Your task to perform on an android device: toggle show notifications on the lock screen Image 0: 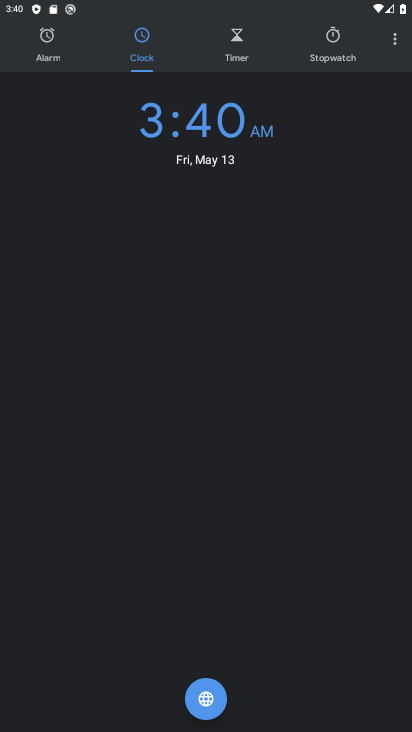
Step 0: press home button
Your task to perform on an android device: toggle show notifications on the lock screen Image 1: 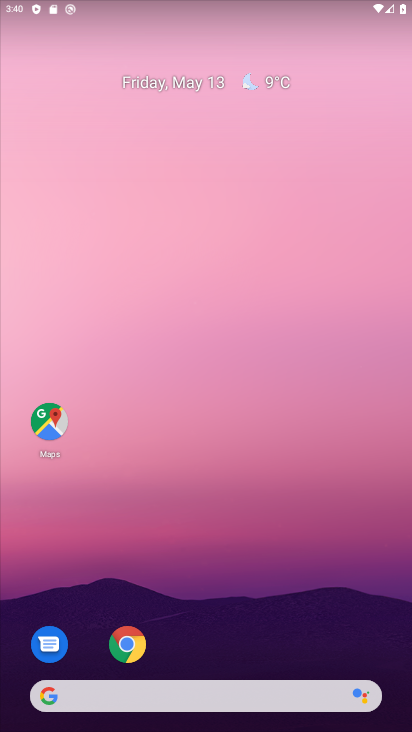
Step 1: drag from (258, 603) to (223, 158)
Your task to perform on an android device: toggle show notifications on the lock screen Image 2: 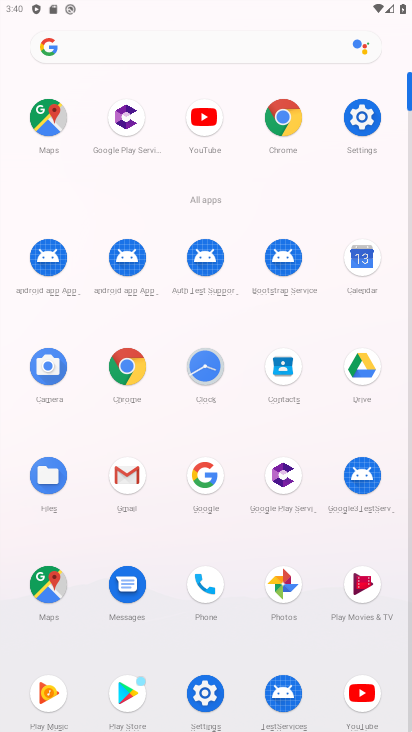
Step 2: click (370, 128)
Your task to perform on an android device: toggle show notifications on the lock screen Image 3: 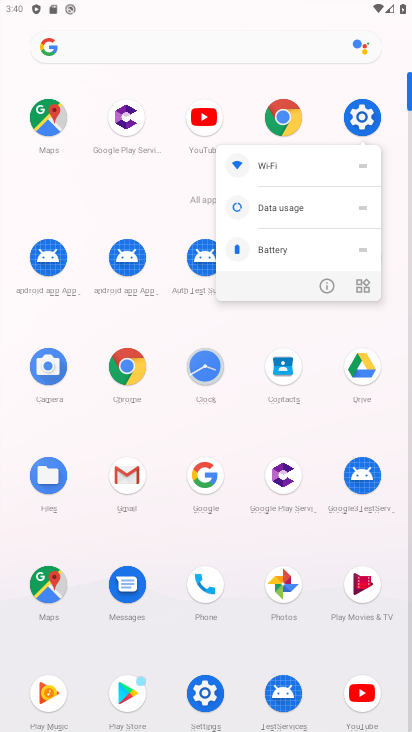
Step 3: click (364, 117)
Your task to perform on an android device: toggle show notifications on the lock screen Image 4: 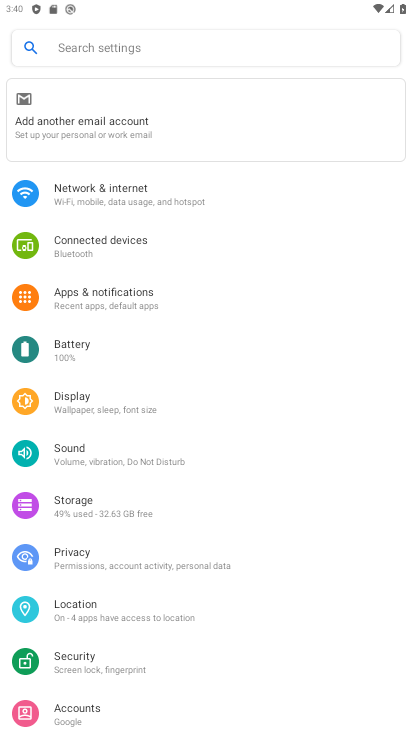
Step 4: click (168, 287)
Your task to perform on an android device: toggle show notifications on the lock screen Image 5: 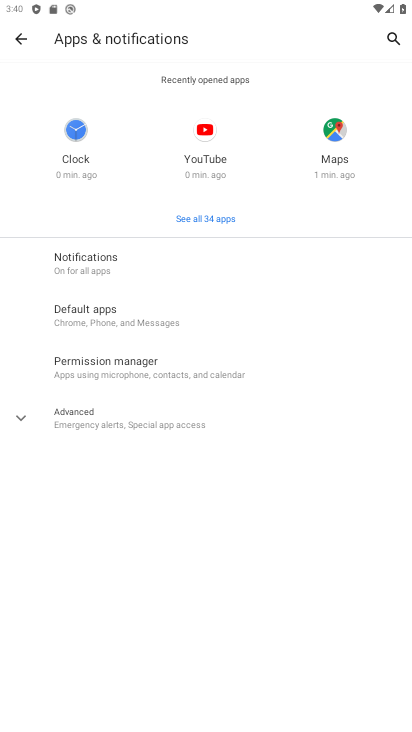
Step 5: click (147, 257)
Your task to perform on an android device: toggle show notifications on the lock screen Image 6: 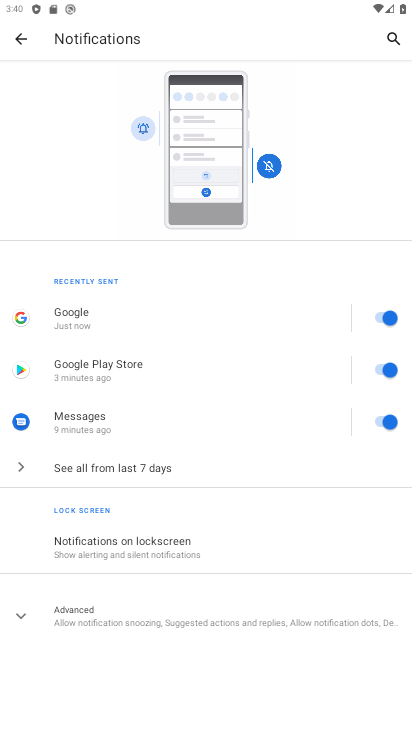
Step 6: click (138, 554)
Your task to perform on an android device: toggle show notifications on the lock screen Image 7: 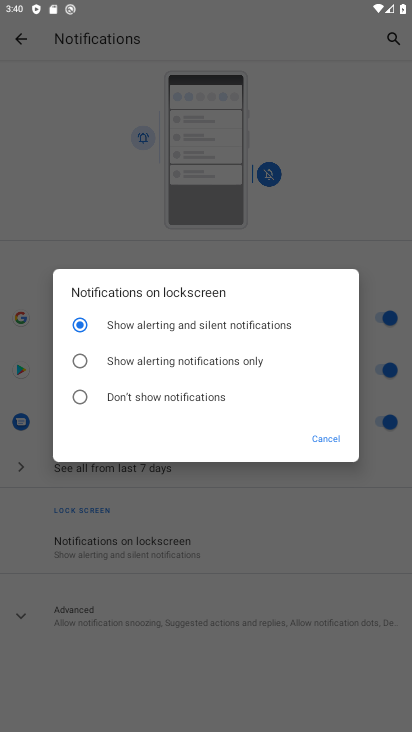
Step 7: click (130, 372)
Your task to perform on an android device: toggle show notifications on the lock screen Image 8: 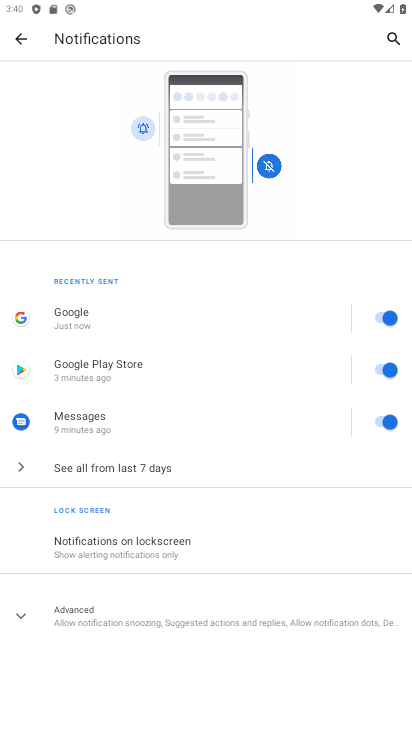
Step 8: task complete